Your task to perform on an android device: Open accessibility settings Image 0: 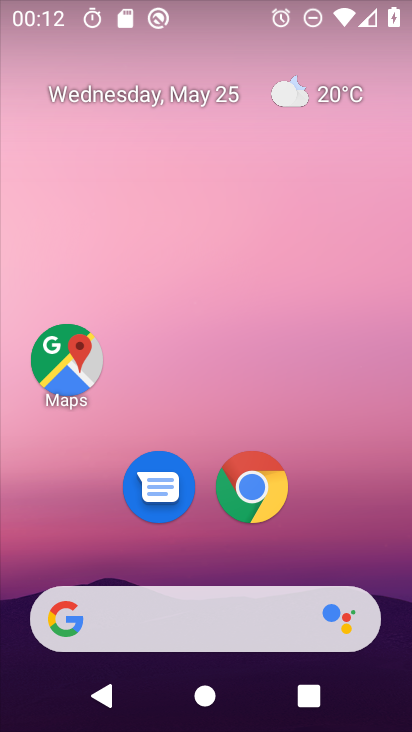
Step 0: drag from (358, 575) to (352, 9)
Your task to perform on an android device: Open accessibility settings Image 1: 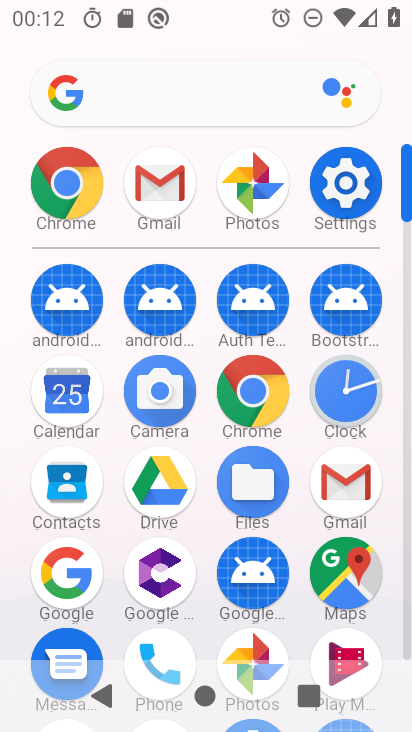
Step 1: click (352, 188)
Your task to perform on an android device: Open accessibility settings Image 2: 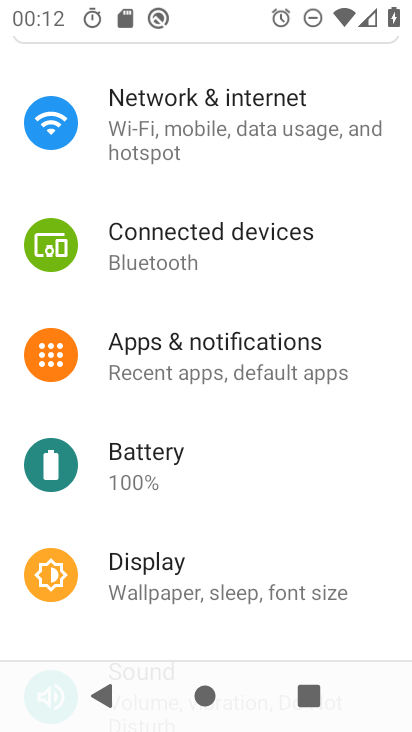
Step 2: drag from (255, 538) to (231, 48)
Your task to perform on an android device: Open accessibility settings Image 3: 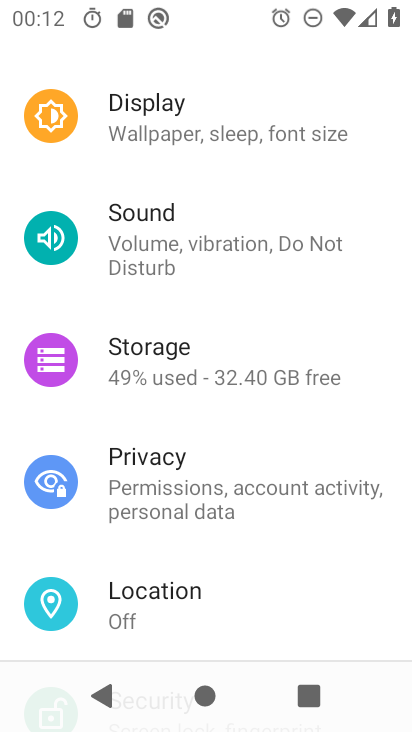
Step 3: drag from (237, 507) to (212, 110)
Your task to perform on an android device: Open accessibility settings Image 4: 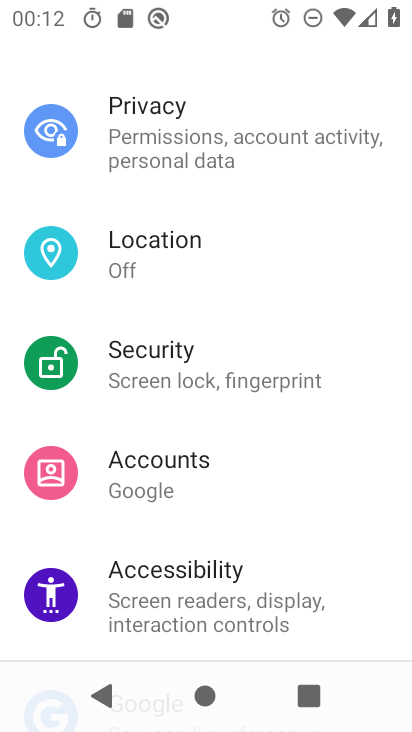
Step 4: click (204, 585)
Your task to perform on an android device: Open accessibility settings Image 5: 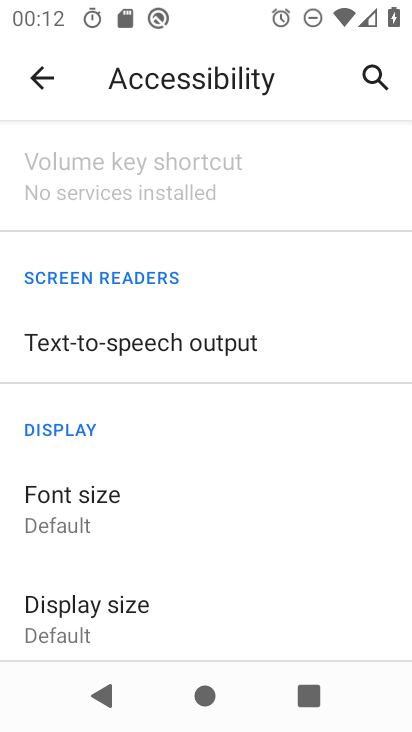
Step 5: task complete